Your task to perform on an android device: toggle notifications settings in the gmail app Image 0: 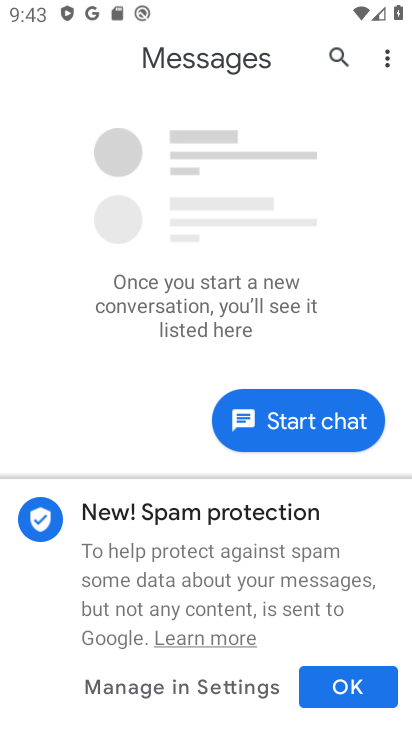
Step 0: press back button
Your task to perform on an android device: toggle notifications settings in the gmail app Image 1: 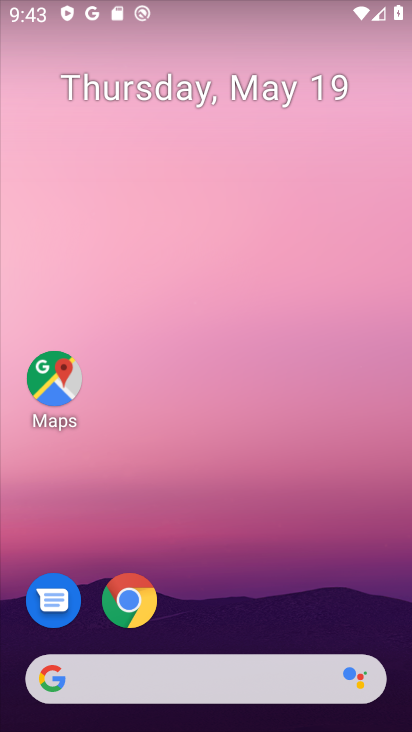
Step 1: drag from (286, 535) to (195, 38)
Your task to perform on an android device: toggle notifications settings in the gmail app Image 2: 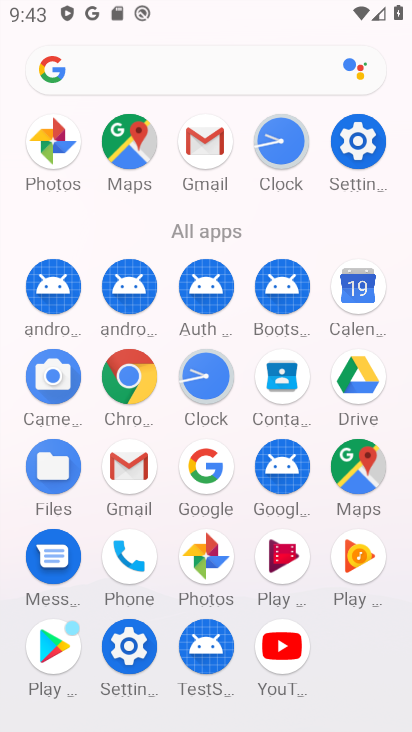
Step 2: click (126, 461)
Your task to perform on an android device: toggle notifications settings in the gmail app Image 3: 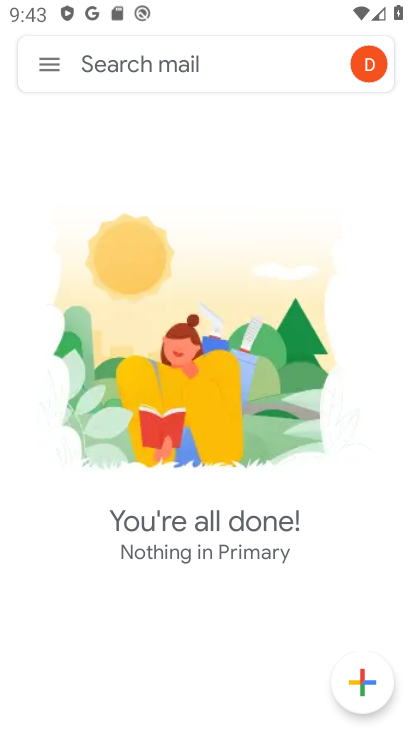
Step 3: click (54, 57)
Your task to perform on an android device: toggle notifications settings in the gmail app Image 4: 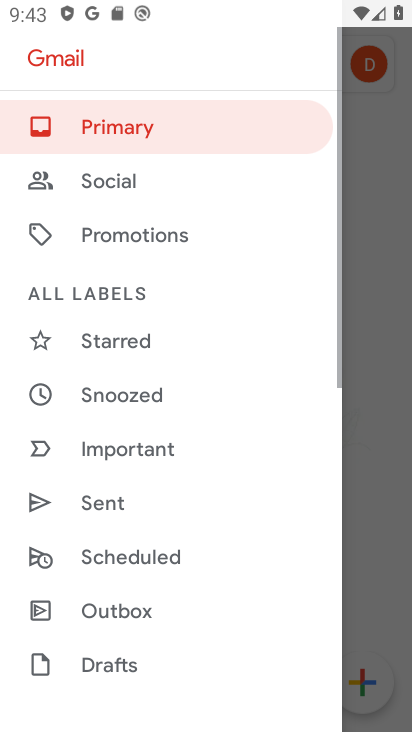
Step 4: drag from (136, 495) to (183, 101)
Your task to perform on an android device: toggle notifications settings in the gmail app Image 5: 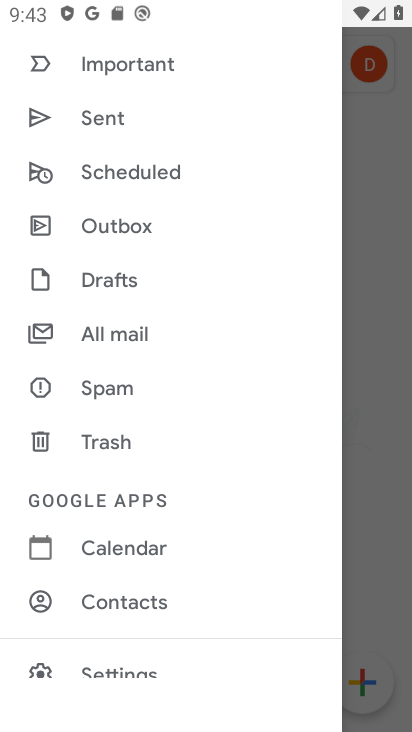
Step 5: drag from (166, 609) to (193, 207)
Your task to perform on an android device: toggle notifications settings in the gmail app Image 6: 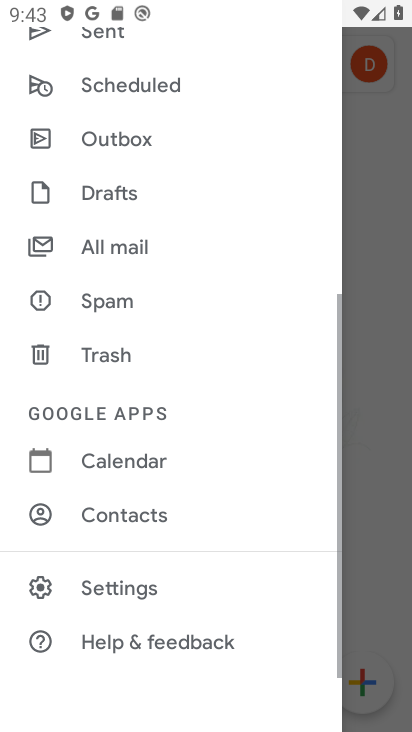
Step 6: click (113, 580)
Your task to perform on an android device: toggle notifications settings in the gmail app Image 7: 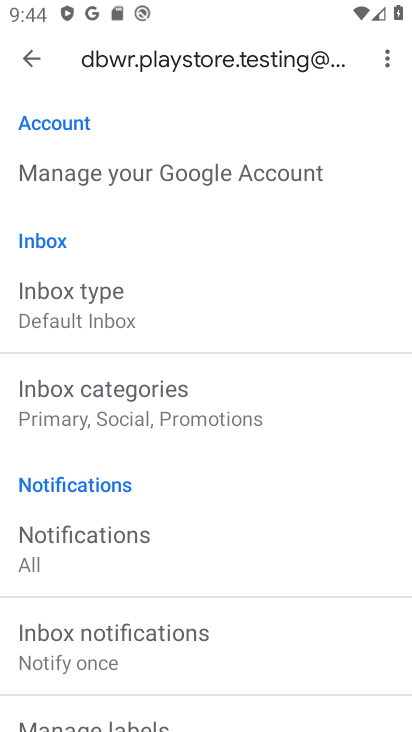
Step 7: drag from (208, 589) to (193, 123)
Your task to perform on an android device: toggle notifications settings in the gmail app Image 8: 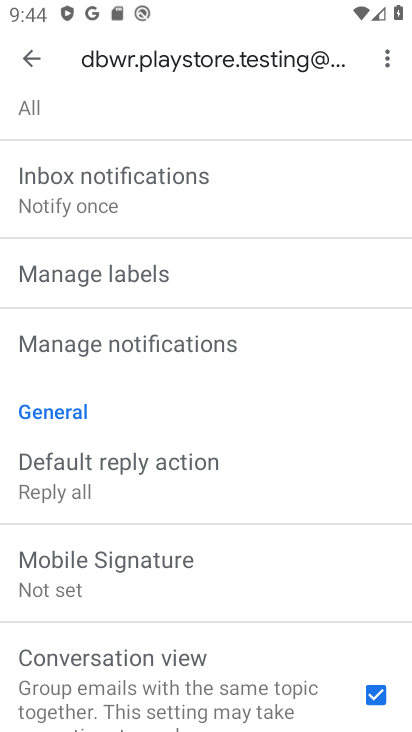
Step 8: click (158, 338)
Your task to perform on an android device: toggle notifications settings in the gmail app Image 9: 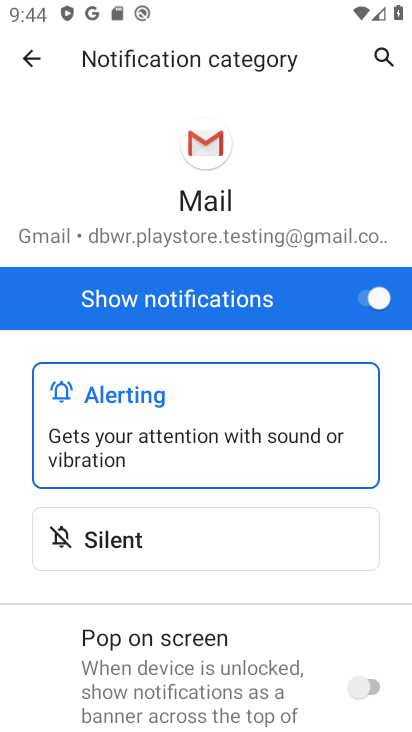
Step 9: click (375, 298)
Your task to perform on an android device: toggle notifications settings in the gmail app Image 10: 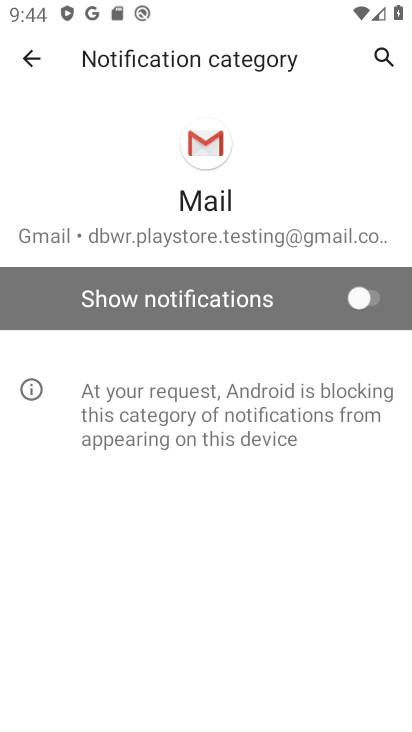
Step 10: task complete